Your task to perform on an android device: Open maps Image 0: 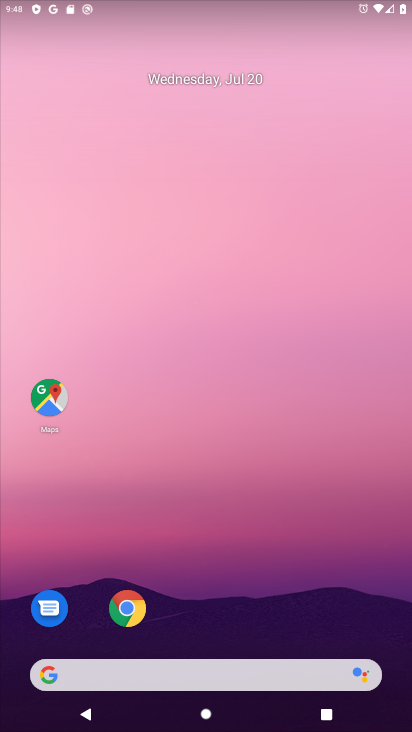
Step 0: click (47, 392)
Your task to perform on an android device: Open maps Image 1: 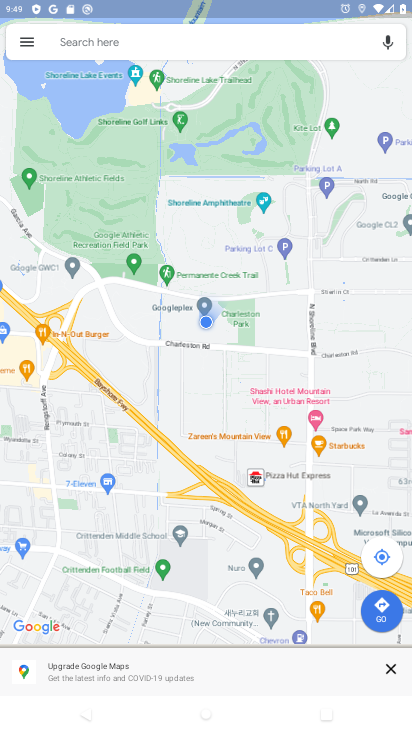
Step 1: task complete